Your task to perform on an android device: Open privacy settings Image 0: 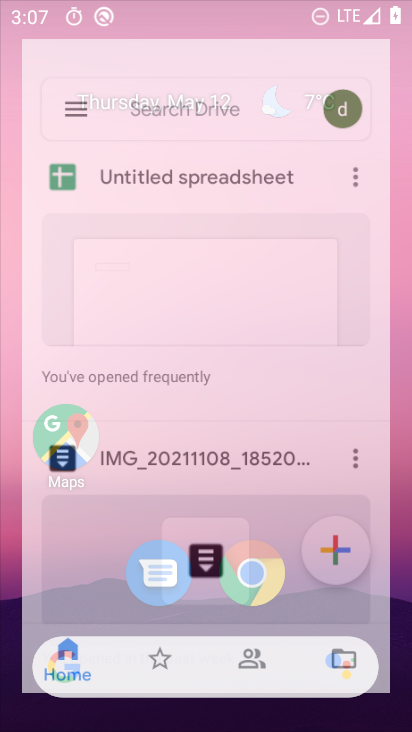
Step 0: drag from (324, 568) to (124, 25)
Your task to perform on an android device: Open privacy settings Image 1: 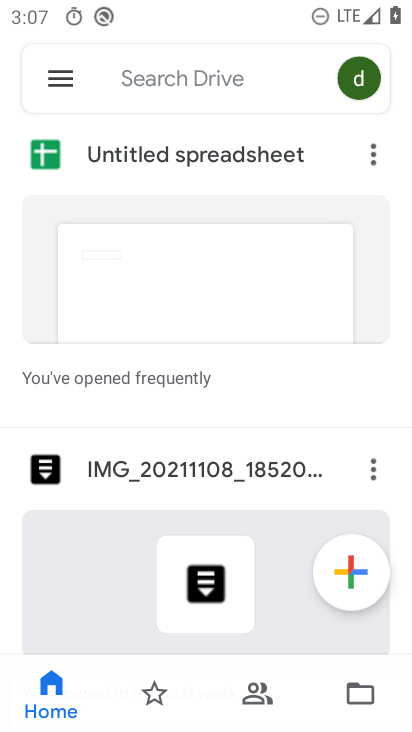
Step 1: press back button
Your task to perform on an android device: Open privacy settings Image 2: 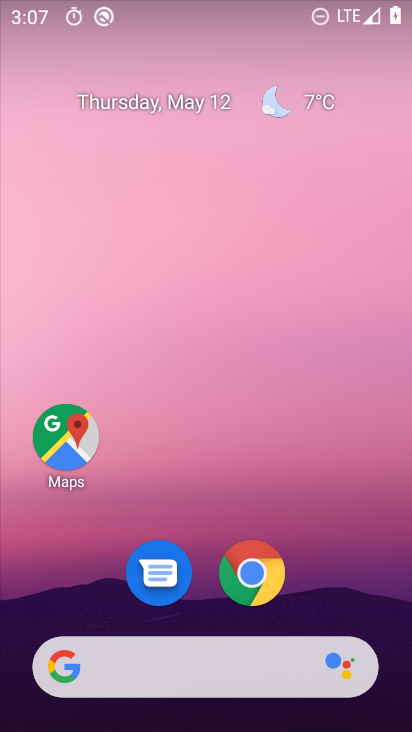
Step 2: drag from (346, 578) to (109, 44)
Your task to perform on an android device: Open privacy settings Image 3: 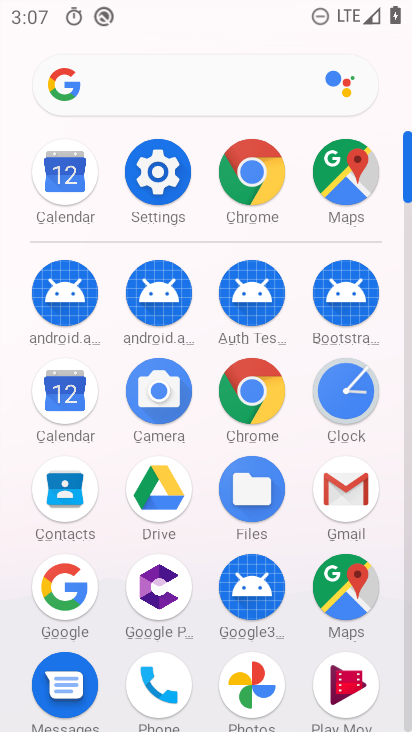
Step 3: click (134, 174)
Your task to perform on an android device: Open privacy settings Image 4: 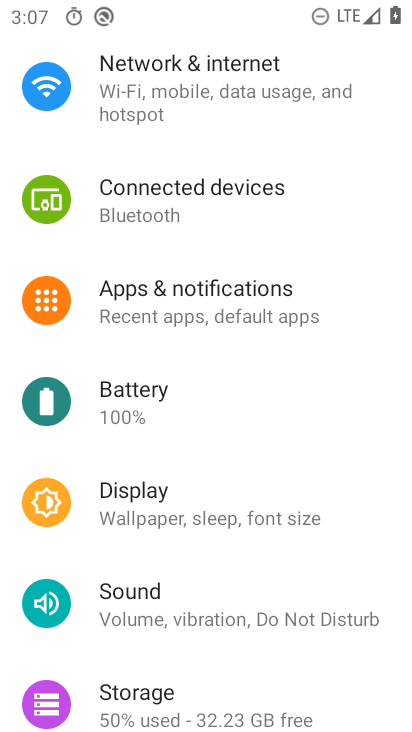
Step 4: drag from (230, 585) to (174, 257)
Your task to perform on an android device: Open privacy settings Image 5: 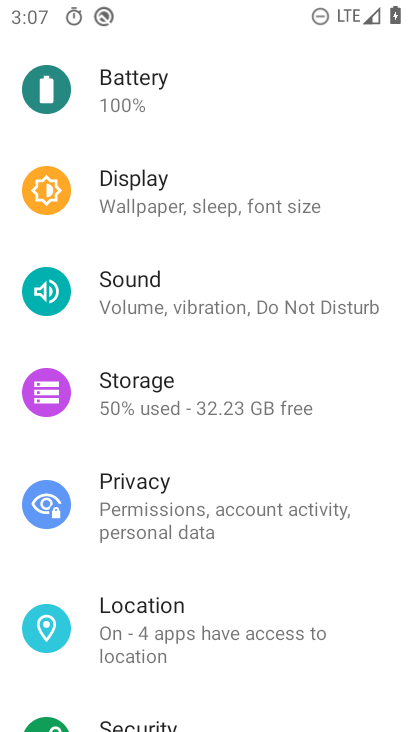
Step 5: drag from (229, 510) to (211, 225)
Your task to perform on an android device: Open privacy settings Image 6: 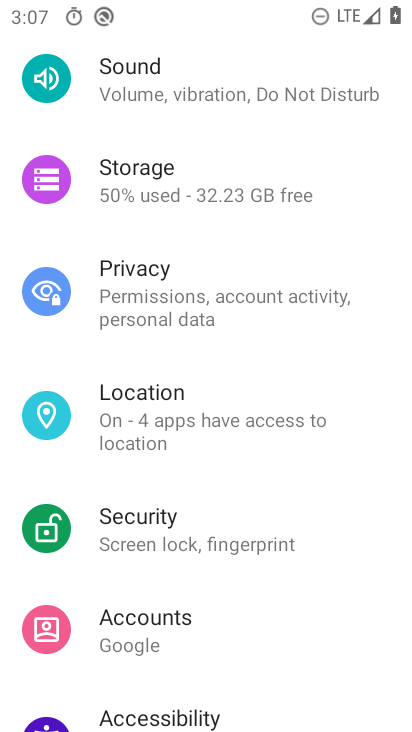
Step 6: click (132, 301)
Your task to perform on an android device: Open privacy settings Image 7: 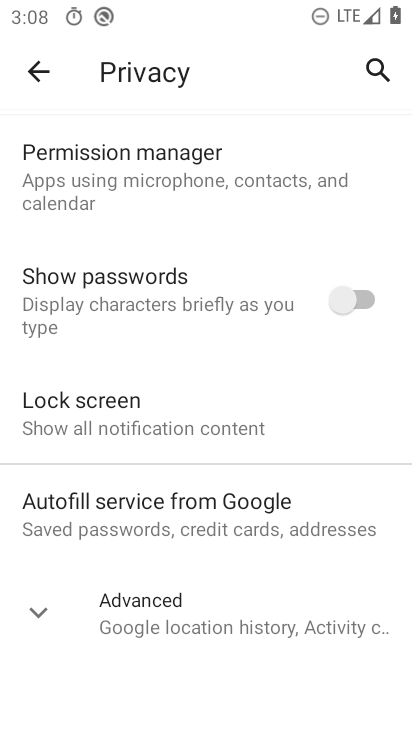
Step 7: task complete